Your task to perform on an android device: change alarm snooze length Image 0: 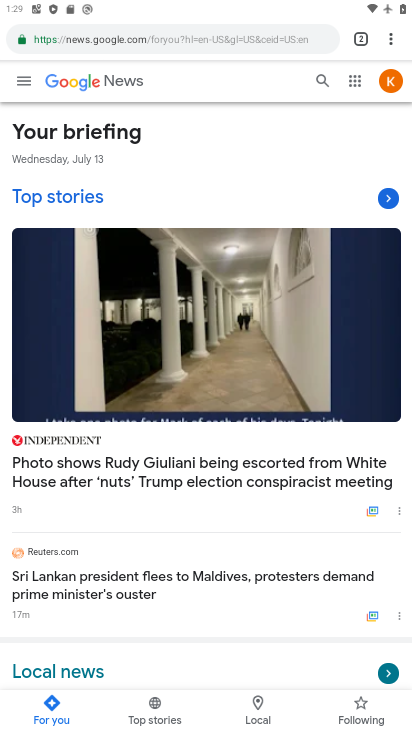
Step 0: press home button
Your task to perform on an android device: change alarm snooze length Image 1: 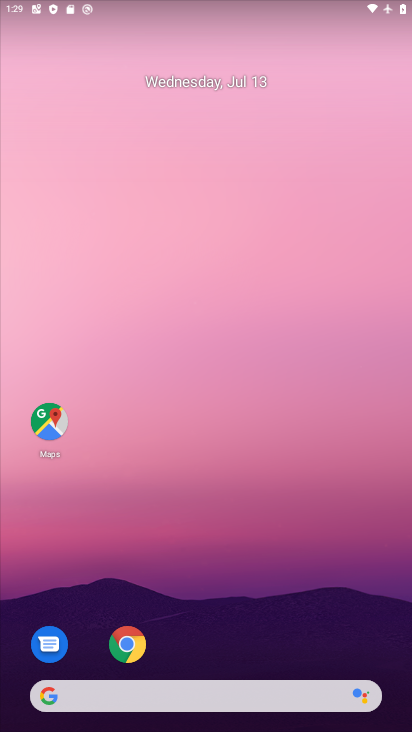
Step 1: drag from (287, 527) to (261, 87)
Your task to perform on an android device: change alarm snooze length Image 2: 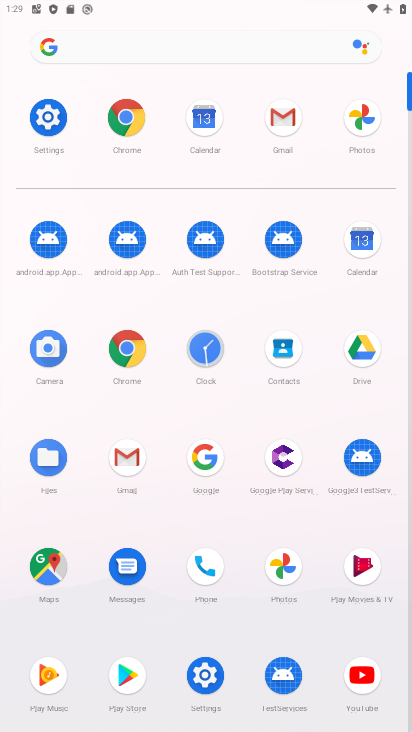
Step 2: click (201, 350)
Your task to perform on an android device: change alarm snooze length Image 3: 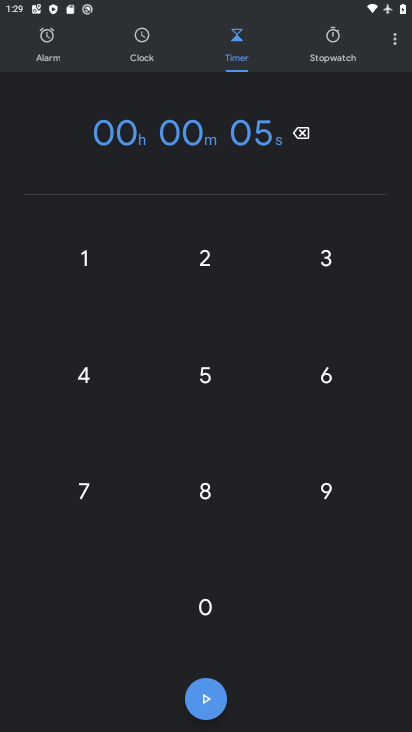
Step 3: click (399, 36)
Your task to perform on an android device: change alarm snooze length Image 4: 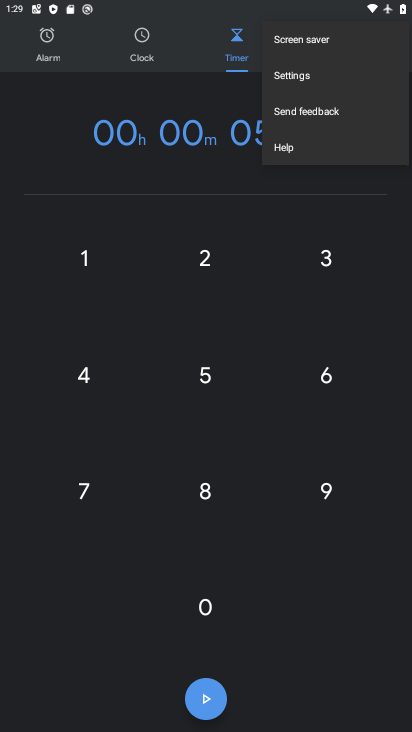
Step 4: click (295, 72)
Your task to perform on an android device: change alarm snooze length Image 5: 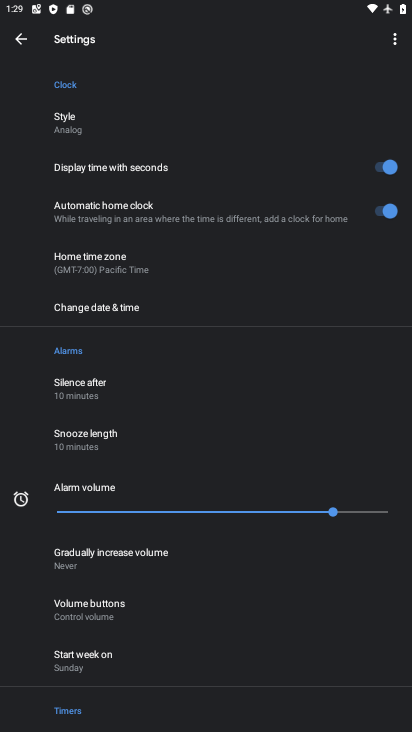
Step 5: click (111, 438)
Your task to perform on an android device: change alarm snooze length Image 6: 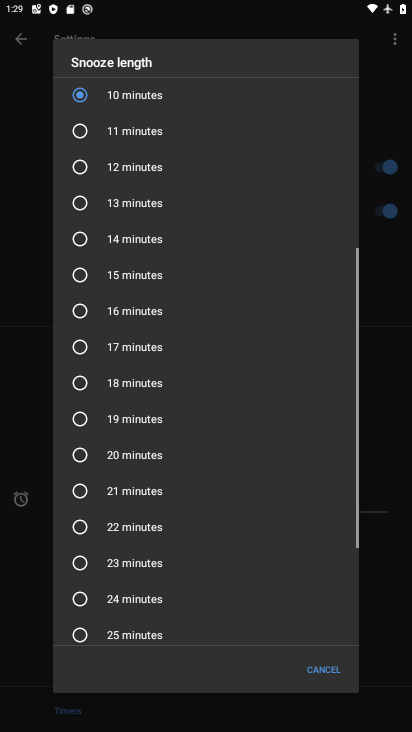
Step 6: click (149, 143)
Your task to perform on an android device: change alarm snooze length Image 7: 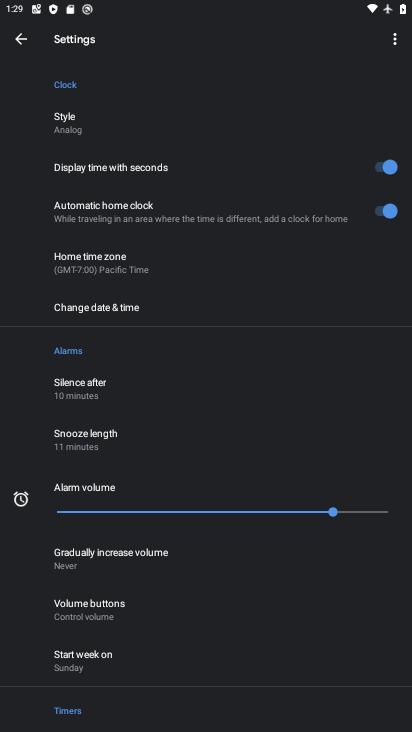
Step 7: task complete